Your task to perform on an android device: Go to sound settings Image 0: 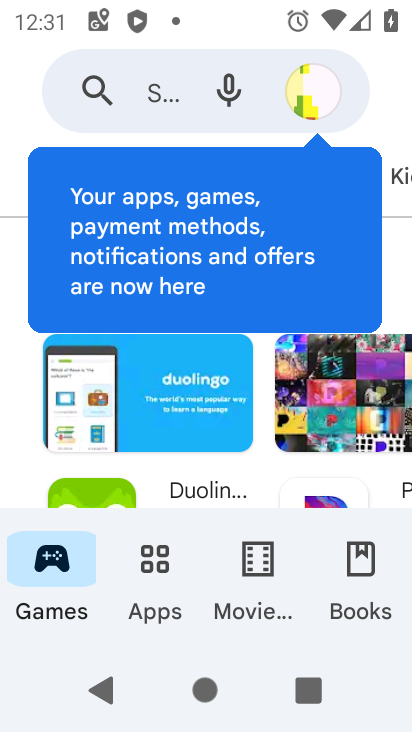
Step 0: press home button
Your task to perform on an android device: Go to sound settings Image 1: 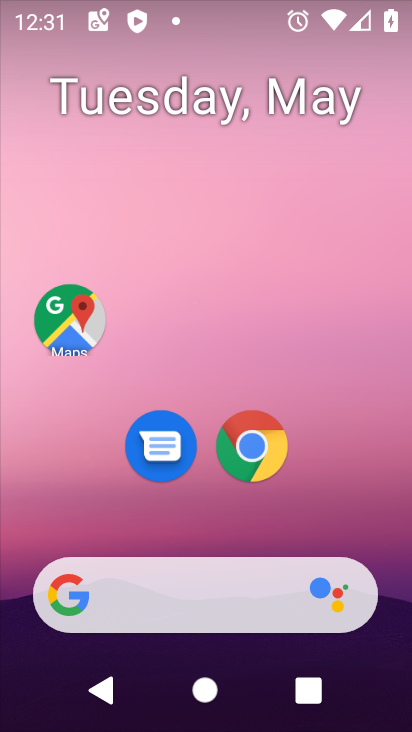
Step 1: drag from (200, 530) to (212, 218)
Your task to perform on an android device: Go to sound settings Image 2: 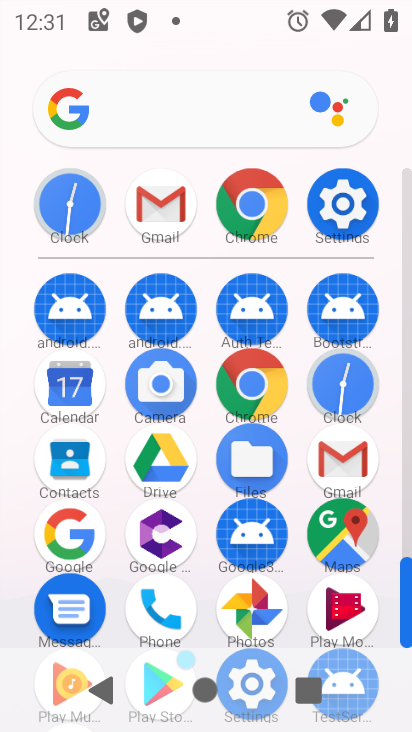
Step 2: drag from (241, 584) to (259, 439)
Your task to perform on an android device: Go to sound settings Image 3: 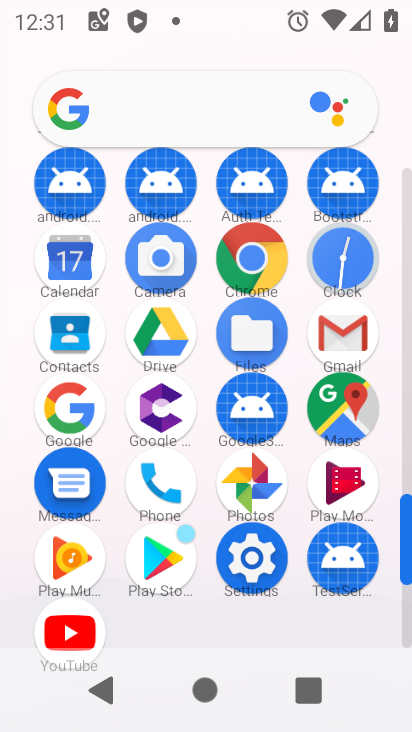
Step 3: click (248, 559)
Your task to perform on an android device: Go to sound settings Image 4: 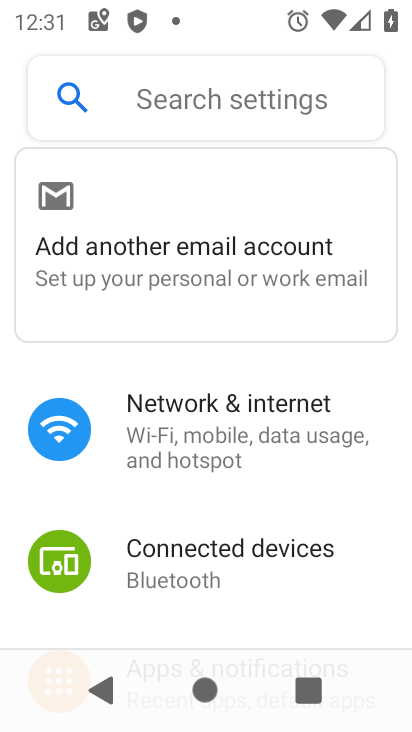
Step 4: drag from (206, 552) to (271, 209)
Your task to perform on an android device: Go to sound settings Image 5: 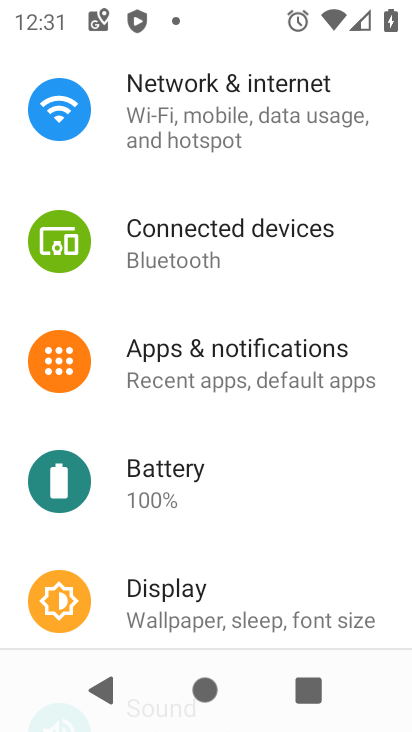
Step 5: drag from (199, 468) to (261, 116)
Your task to perform on an android device: Go to sound settings Image 6: 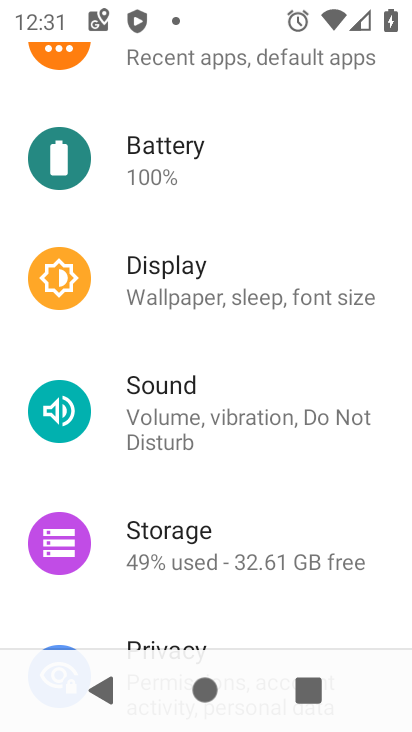
Step 6: click (165, 374)
Your task to perform on an android device: Go to sound settings Image 7: 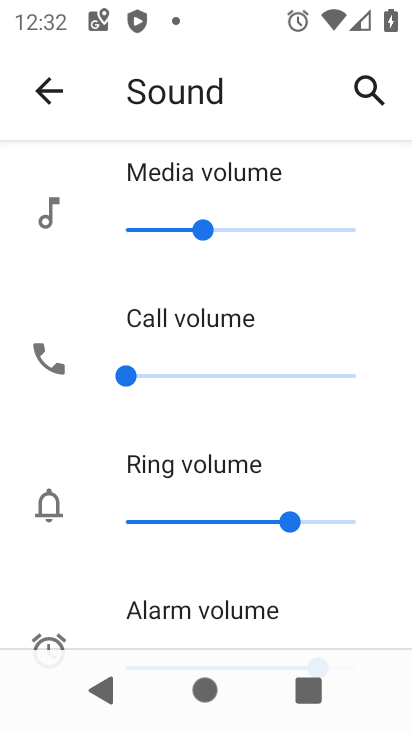
Step 7: task complete